Your task to perform on an android device: move a message to another label in the gmail app Image 0: 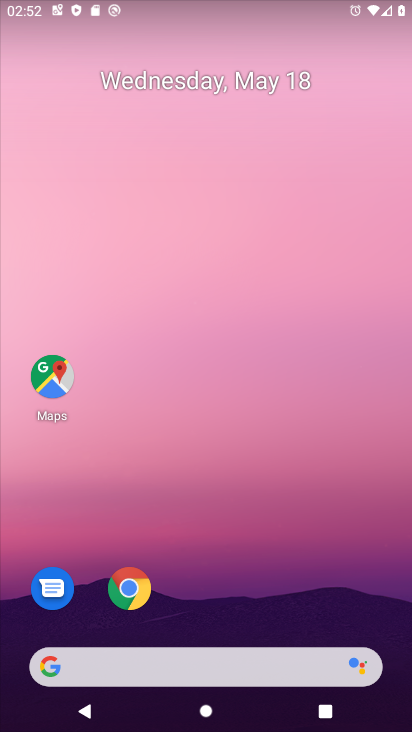
Step 0: drag from (8, 527) to (149, 131)
Your task to perform on an android device: move a message to another label in the gmail app Image 1: 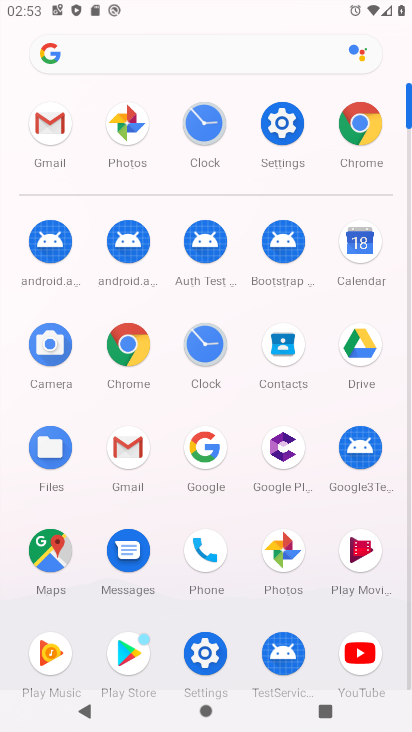
Step 1: click (127, 451)
Your task to perform on an android device: move a message to another label in the gmail app Image 2: 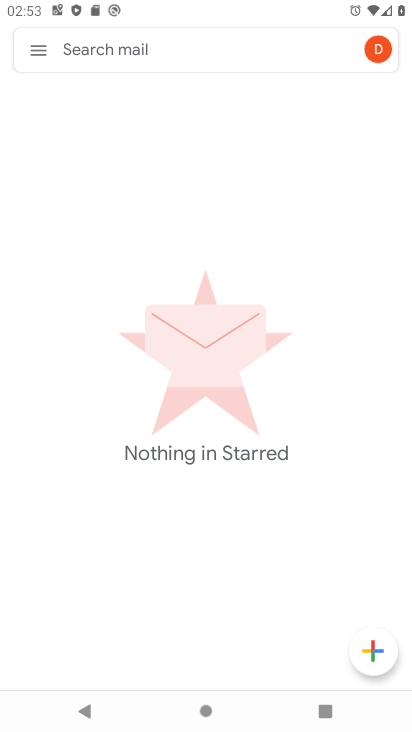
Step 2: click (33, 47)
Your task to perform on an android device: move a message to another label in the gmail app Image 3: 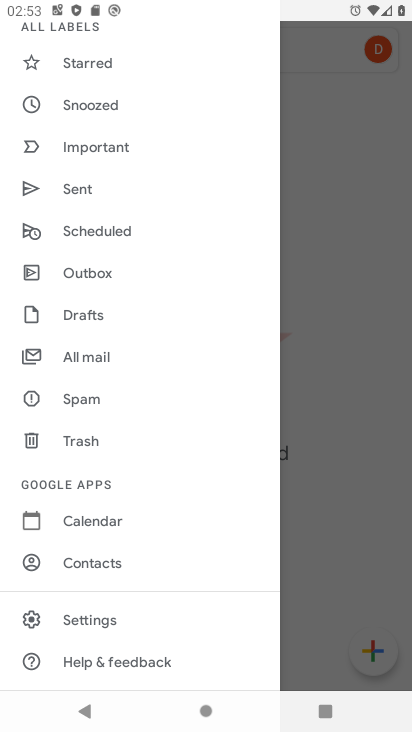
Step 3: click (126, 359)
Your task to perform on an android device: move a message to another label in the gmail app Image 4: 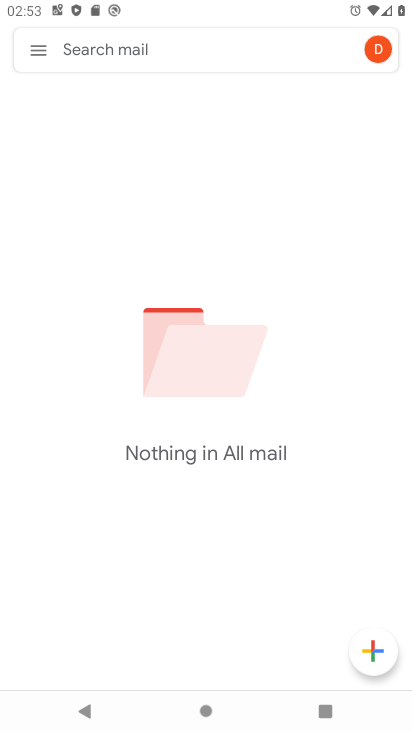
Step 4: task complete